Your task to perform on an android device: clear history in the chrome app Image 0: 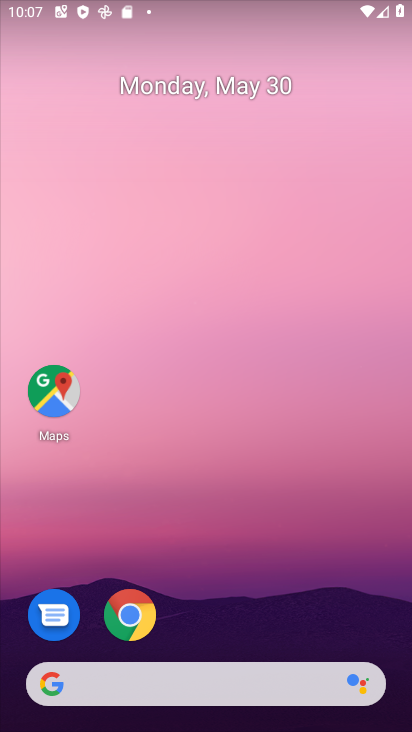
Step 0: click (132, 610)
Your task to perform on an android device: clear history in the chrome app Image 1: 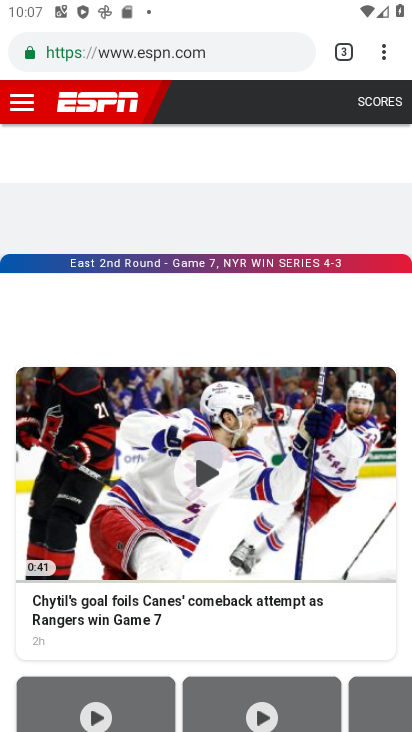
Step 1: click (388, 56)
Your task to perform on an android device: clear history in the chrome app Image 2: 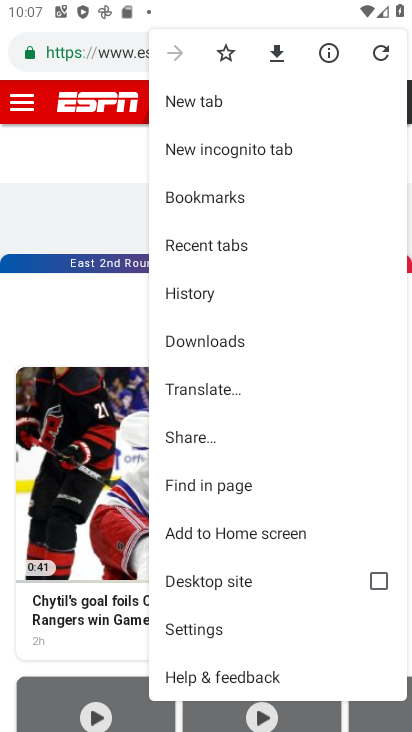
Step 2: click (258, 633)
Your task to perform on an android device: clear history in the chrome app Image 3: 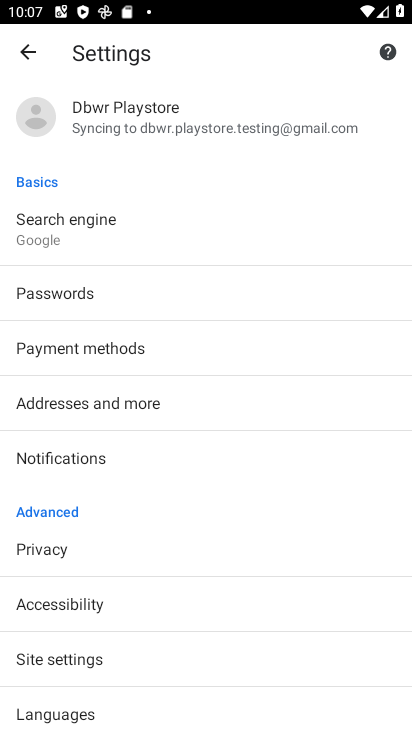
Step 3: click (25, 38)
Your task to perform on an android device: clear history in the chrome app Image 4: 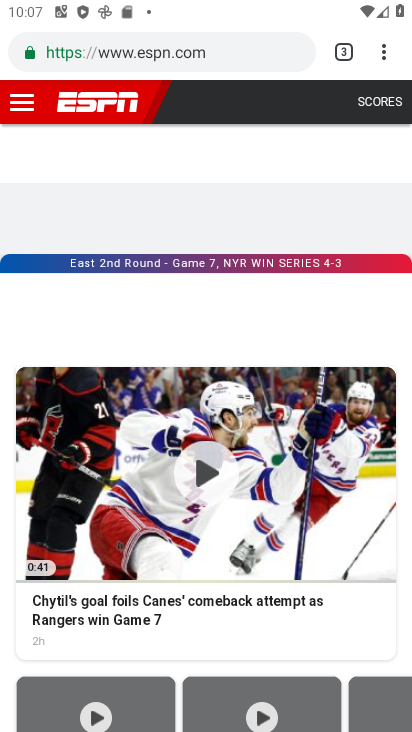
Step 4: click (388, 48)
Your task to perform on an android device: clear history in the chrome app Image 5: 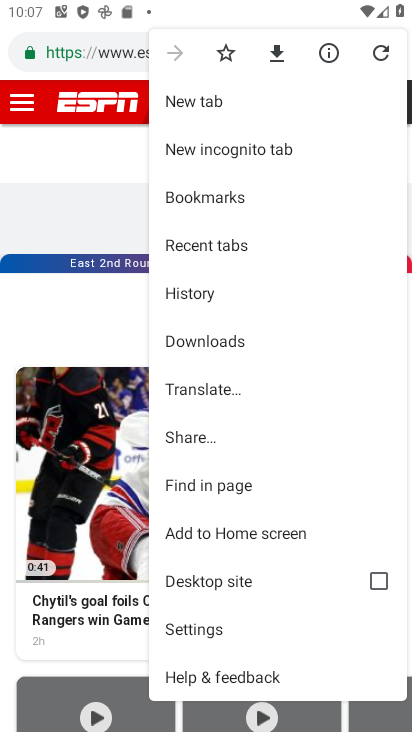
Step 5: click (256, 294)
Your task to perform on an android device: clear history in the chrome app Image 6: 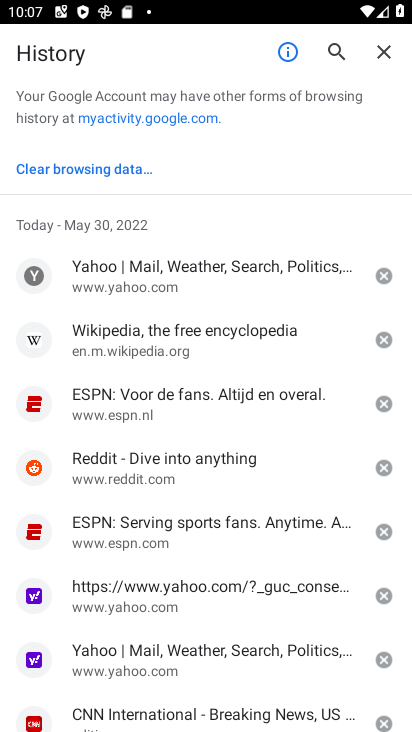
Step 6: click (101, 161)
Your task to perform on an android device: clear history in the chrome app Image 7: 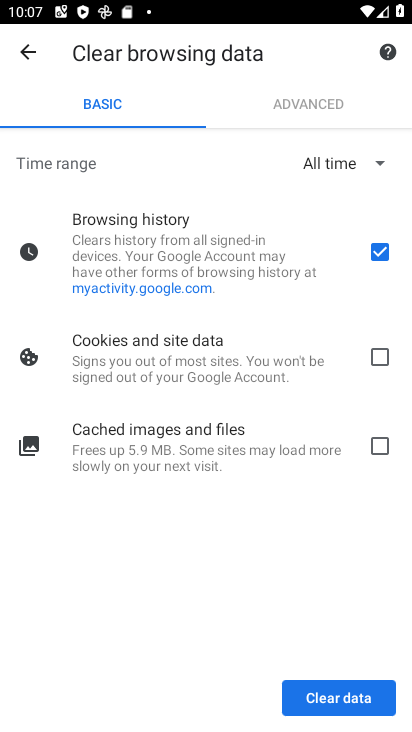
Step 7: click (358, 697)
Your task to perform on an android device: clear history in the chrome app Image 8: 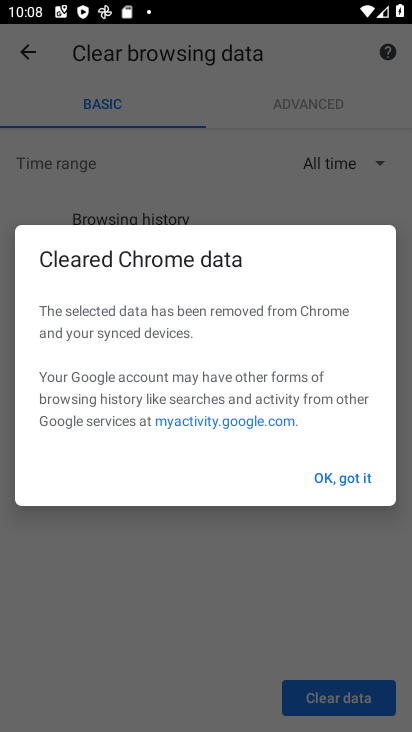
Step 8: click (348, 475)
Your task to perform on an android device: clear history in the chrome app Image 9: 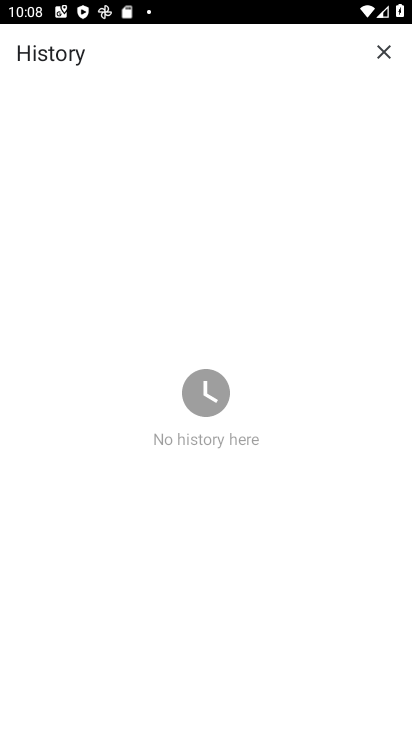
Step 9: task complete